Your task to perform on an android device: Open calendar and show me the second week of next month Image 0: 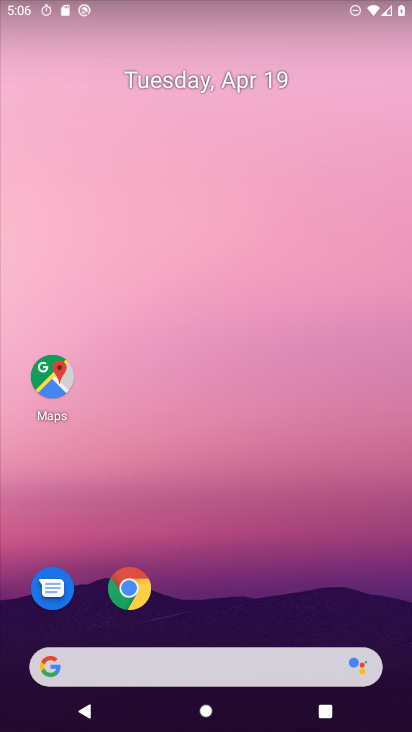
Step 0: drag from (222, 462) to (219, 98)
Your task to perform on an android device: Open calendar and show me the second week of next month Image 1: 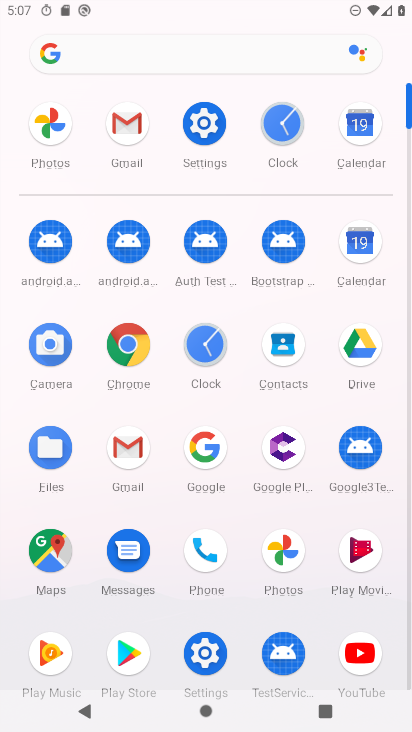
Step 1: click (355, 244)
Your task to perform on an android device: Open calendar and show me the second week of next month Image 2: 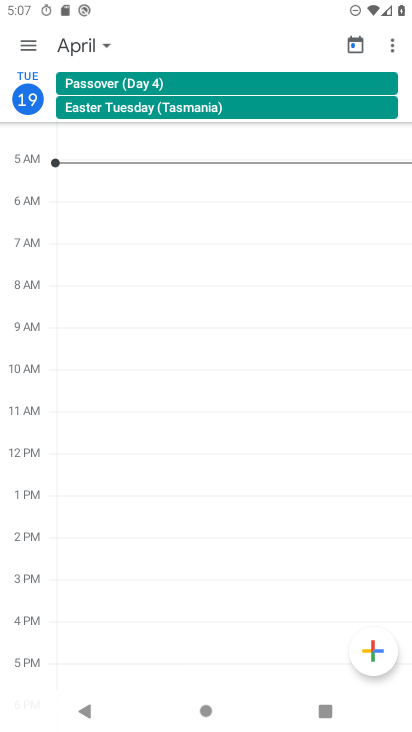
Step 2: click (28, 51)
Your task to perform on an android device: Open calendar and show me the second week of next month Image 3: 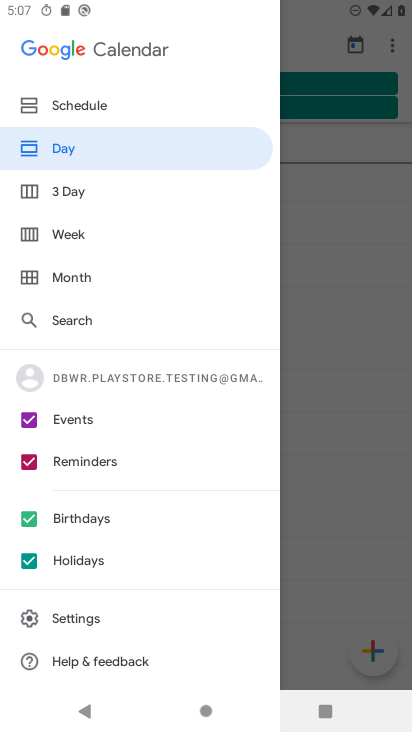
Step 3: click (74, 230)
Your task to perform on an android device: Open calendar and show me the second week of next month Image 4: 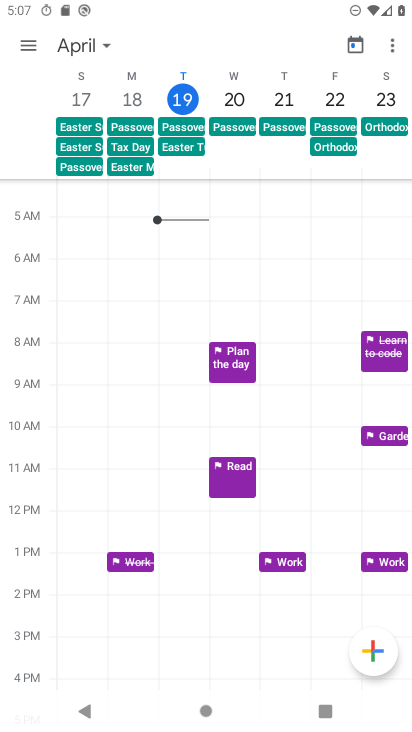
Step 4: click (105, 43)
Your task to perform on an android device: Open calendar and show me the second week of next month Image 5: 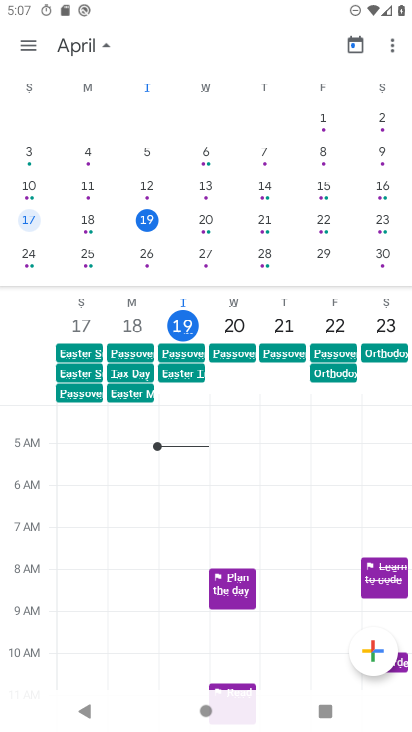
Step 5: drag from (345, 237) to (13, 297)
Your task to perform on an android device: Open calendar and show me the second week of next month Image 6: 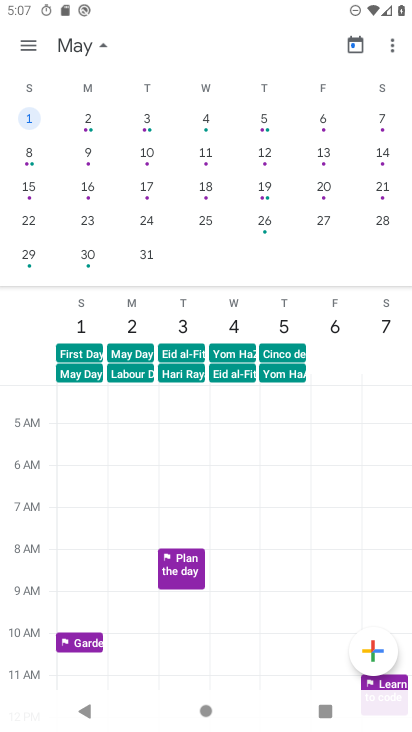
Step 6: click (33, 163)
Your task to perform on an android device: Open calendar and show me the second week of next month Image 7: 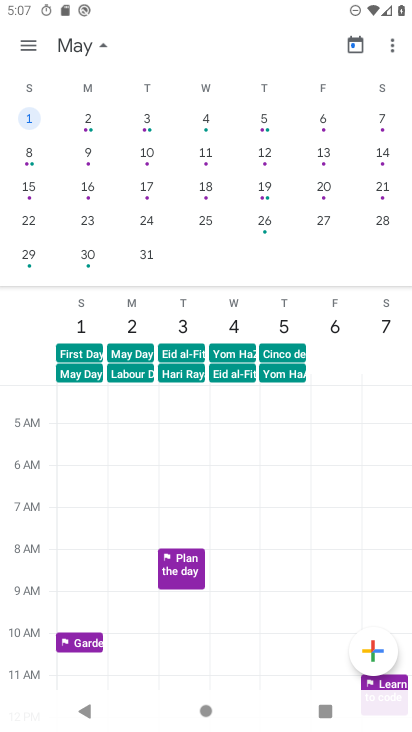
Step 7: click (33, 152)
Your task to perform on an android device: Open calendar and show me the second week of next month Image 8: 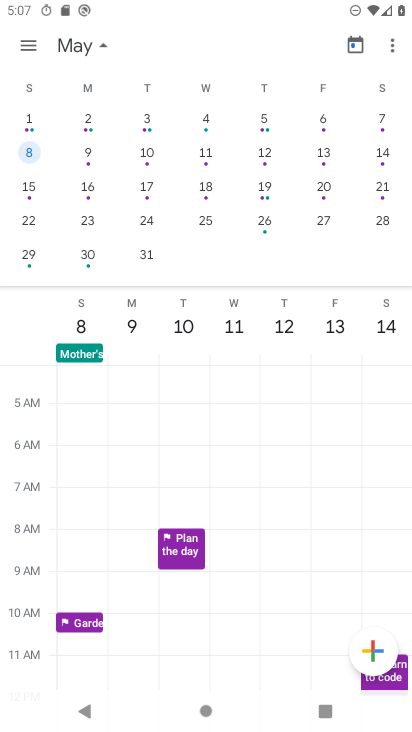
Step 8: task complete